Your task to perform on an android device: turn on the 24-hour format for clock Image 0: 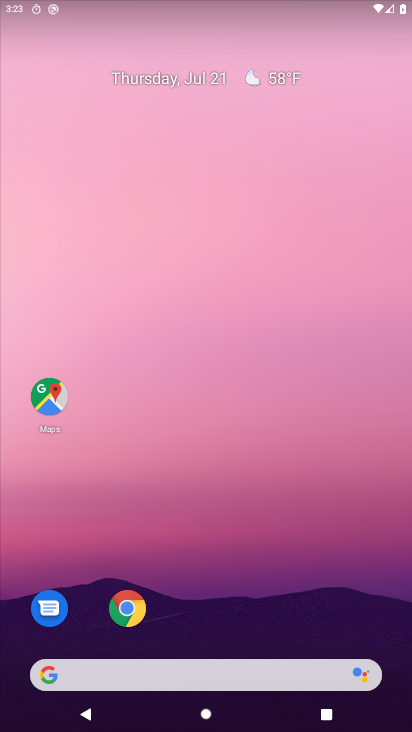
Step 0: press home button
Your task to perform on an android device: turn on the 24-hour format for clock Image 1: 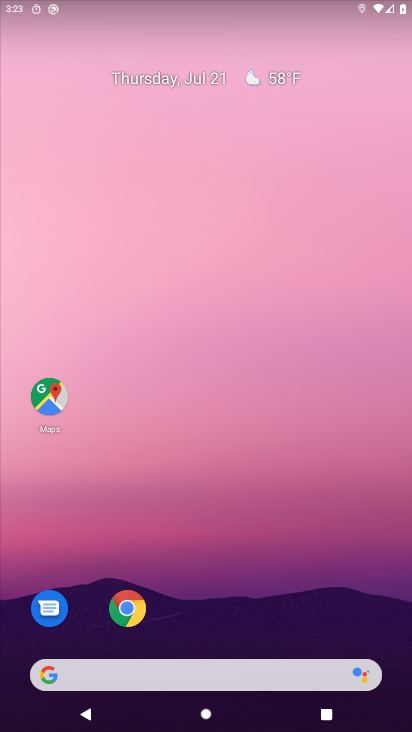
Step 1: drag from (254, 636) to (301, 69)
Your task to perform on an android device: turn on the 24-hour format for clock Image 2: 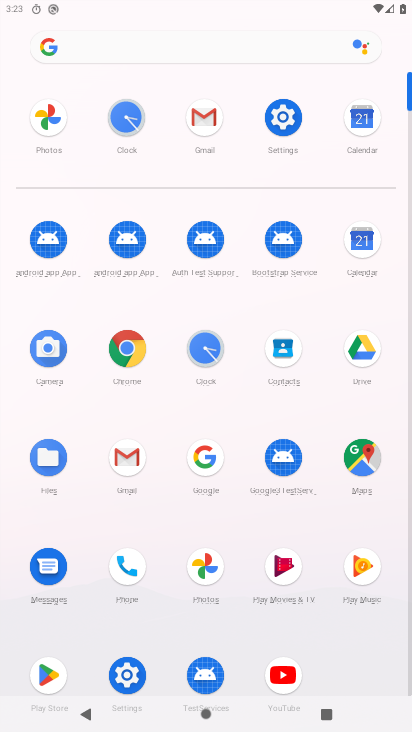
Step 2: click (124, 113)
Your task to perform on an android device: turn on the 24-hour format for clock Image 3: 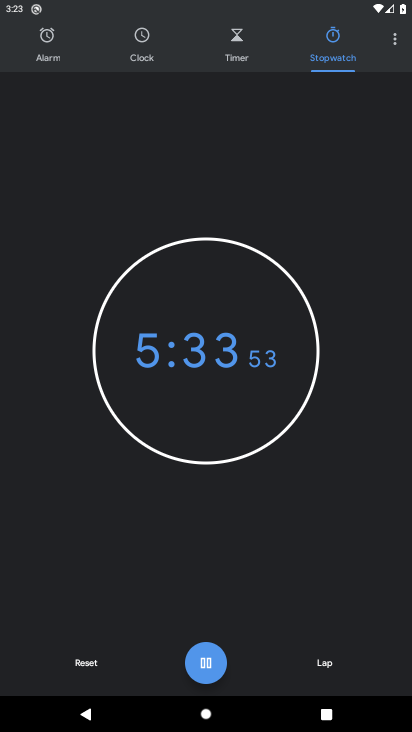
Step 3: click (394, 37)
Your task to perform on an android device: turn on the 24-hour format for clock Image 4: 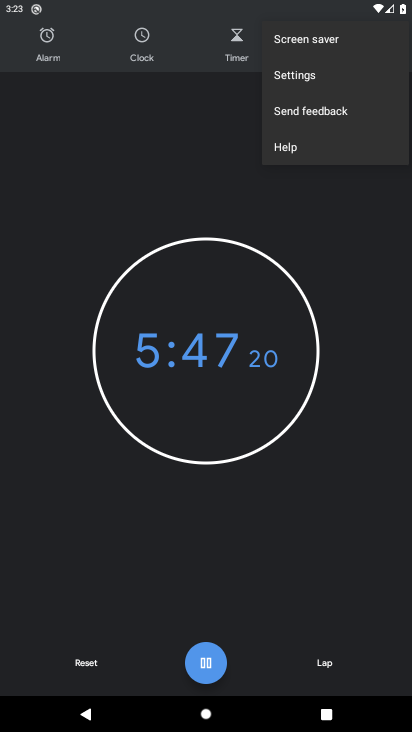
Step 4: click (313, 71)
Your task to perform on an android device: turn on the 24-hour format for clock Image 5: 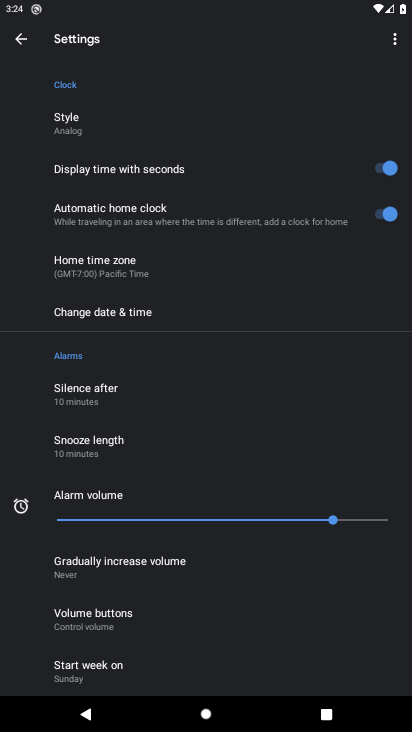
Step 5: click (155, 310)
Your task to perform on an android device: turn on the 24-hour format for clock Image 6: 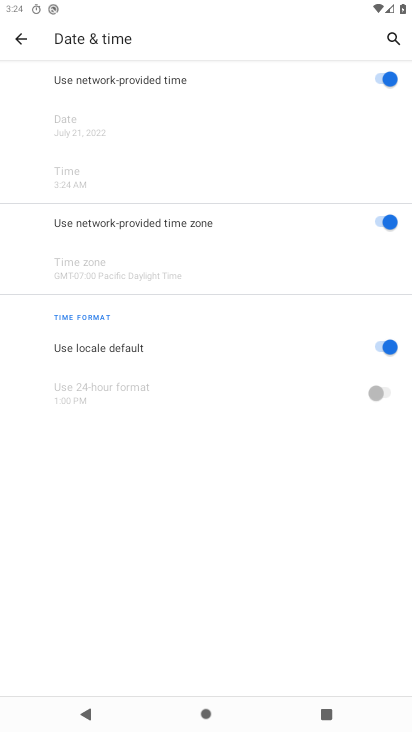
Step 6: click (387, 343)
Your task to perform on an android device: turn on the 24-hour format for clock Image 7: 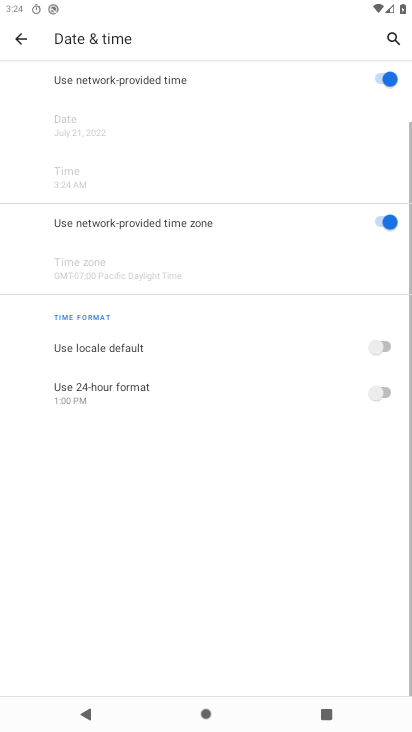
Step 7: click (374, 382)
Your task to perform on an android device: turn on the 24-hour format for clock Image 8: 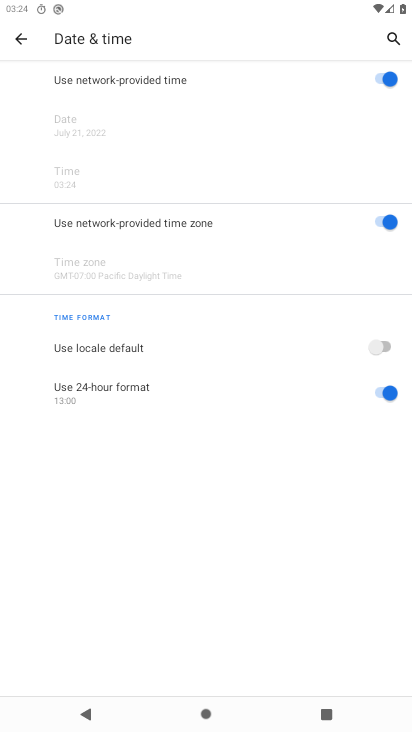
Step 8: task complete